Your task to perform on an android device: Open maps Image 0: 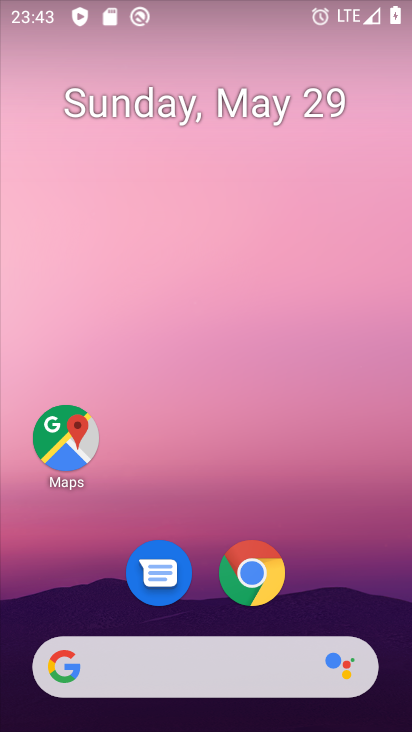
Step 0: click (74, 439)
Your task to perform on an android device: Open maps Image 1: 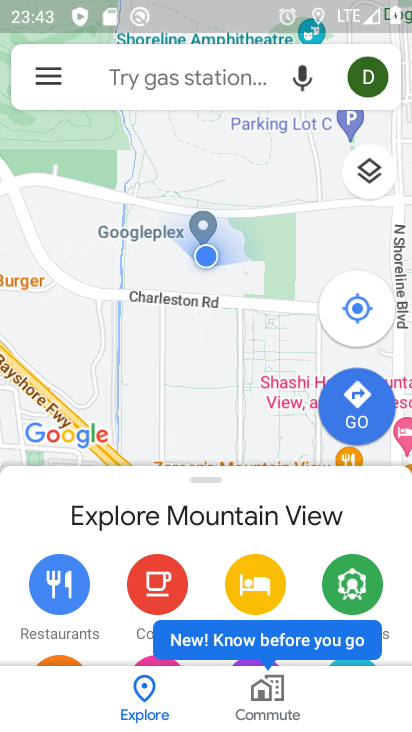
Step 1: task complete